Your task to perform on an android device: Search for seafood restaurants on Google Maps Image 0: 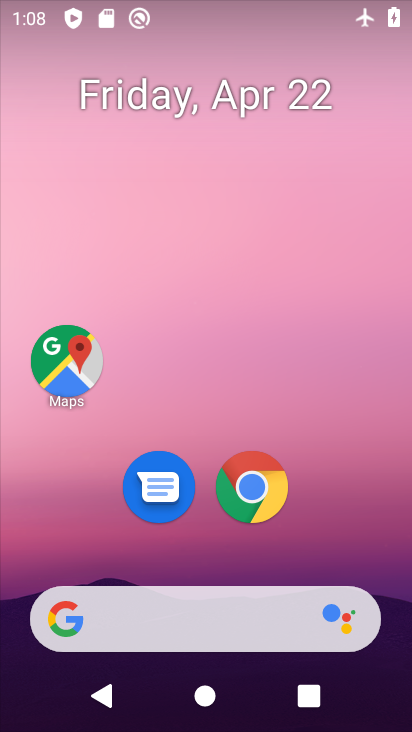
Step 0: click (70, 369)
Your task to perform on an android device: Search for seafood restaurants on Google Maps Image 1: 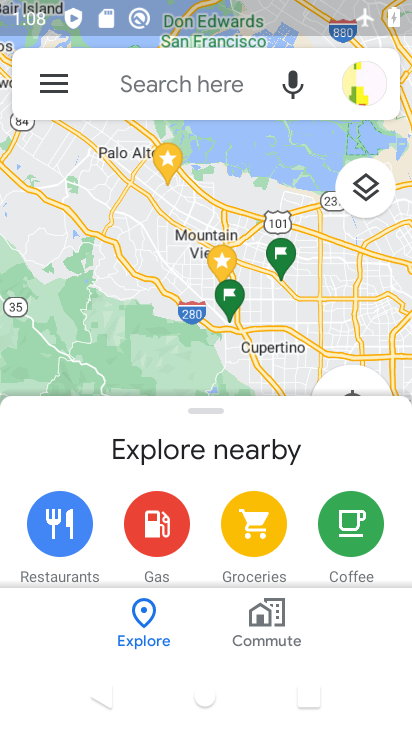
Step 1: click (219, 78)
Your task to perform on an android device: Search for seafood restaurants on Google Maps Image 2: 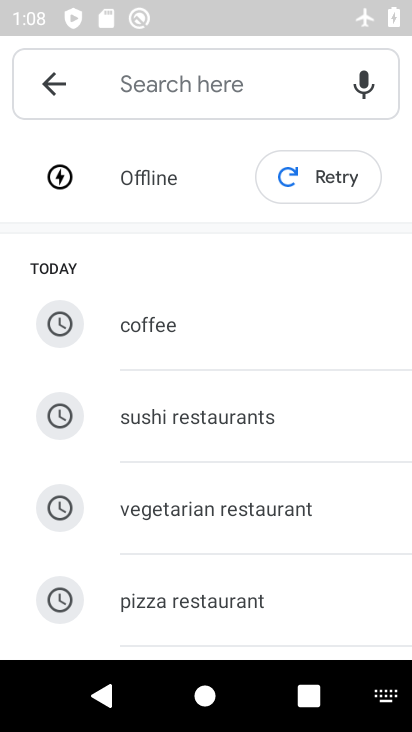
Step 2: type "seafood restaurants"
Your task to perform on an android device: Search for seafood restaurants on Google Maps Image 3: 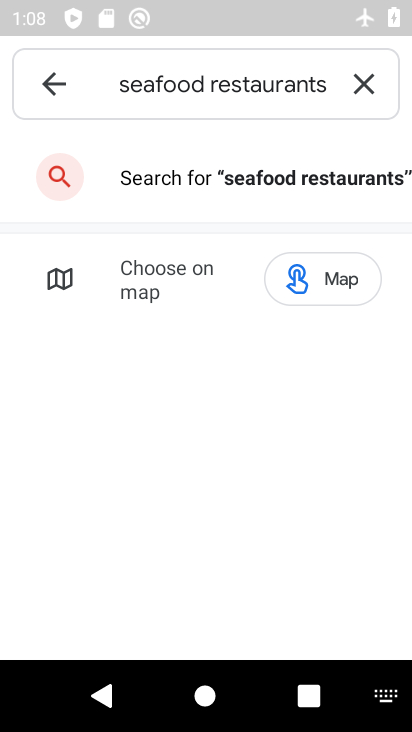
Step 3: click (302, 168)
Your task to perform on an android device: Search for seafood restaurants on Google Maps Image 4: 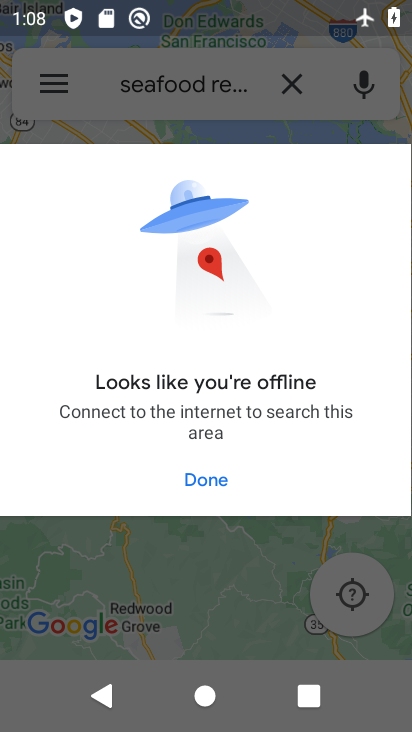
Step 4: task complete